Your task to perform on an android device: Open eBay Image 0: 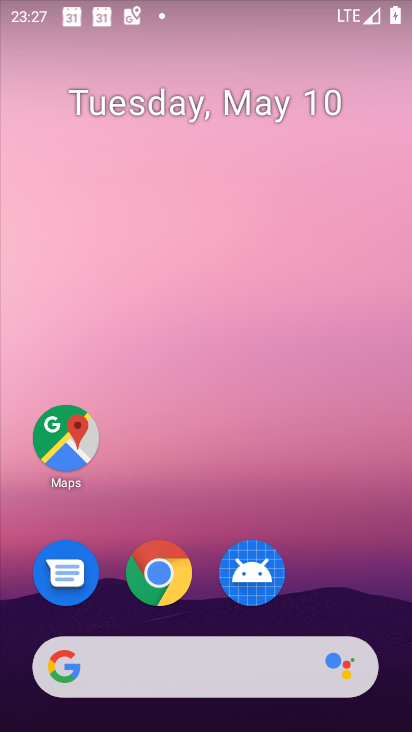
Step 0: click (164, 567)
Your task to perform on an android device: Open eBay Image 1: 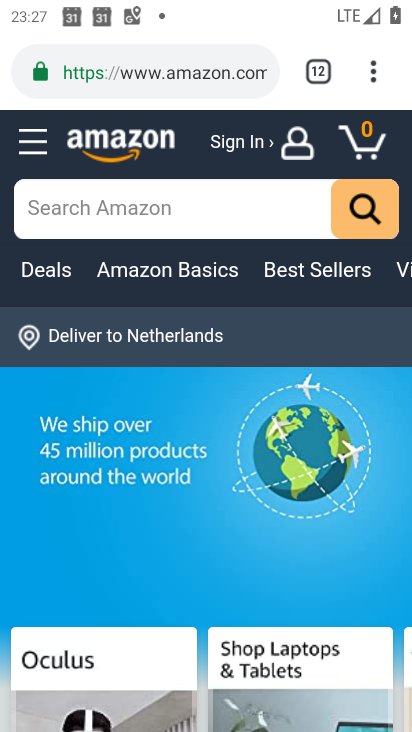
Step 1: click (375, 74)
Your task to perform on an android device: Open eBay Image 2: 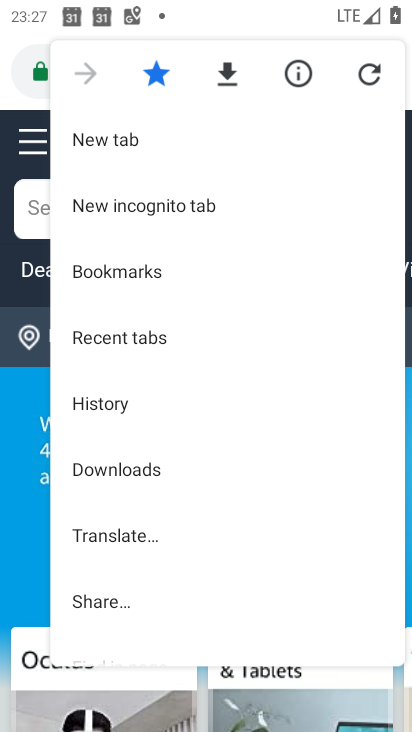
Step 2: click (111, 135)
Your task to perform on an android device: Open eBay Image 3: 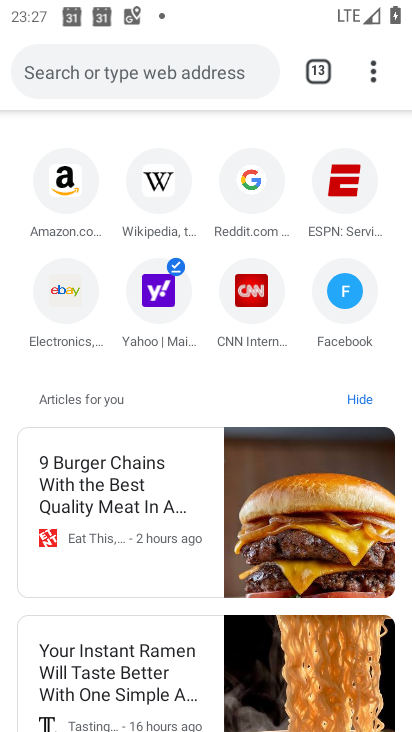
Step 3: click (69, 298)
Your task to perform on an android device: Open eBay Image 4: 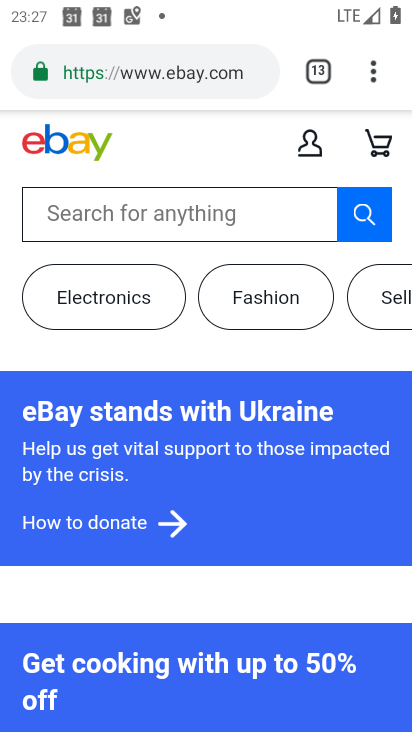
Step 4: task complete